Your task to perform on an android device: delete location history Image 0: 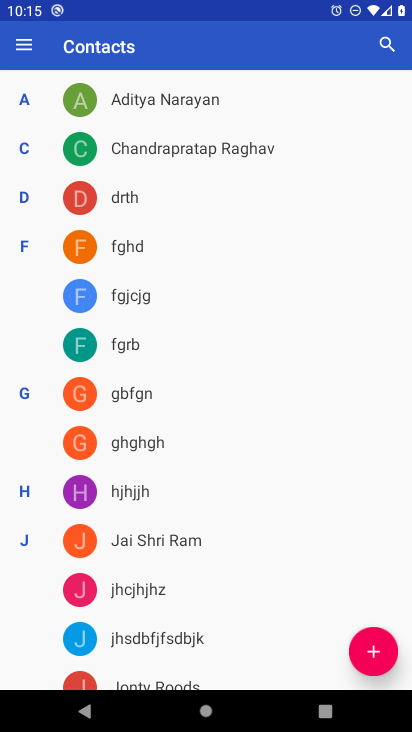
Step 0: press home button
Your task to perform on an android device: delete location history Image 1: 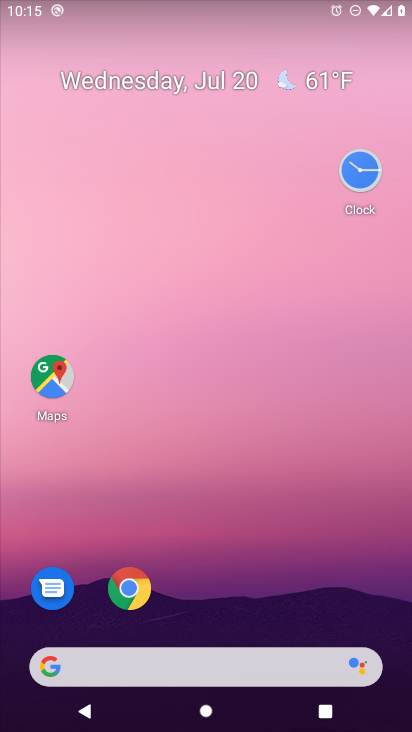
Step 1: drag from (34, 695) to (197, 239)
Your task to perform on an android device: delete location history Image 2: 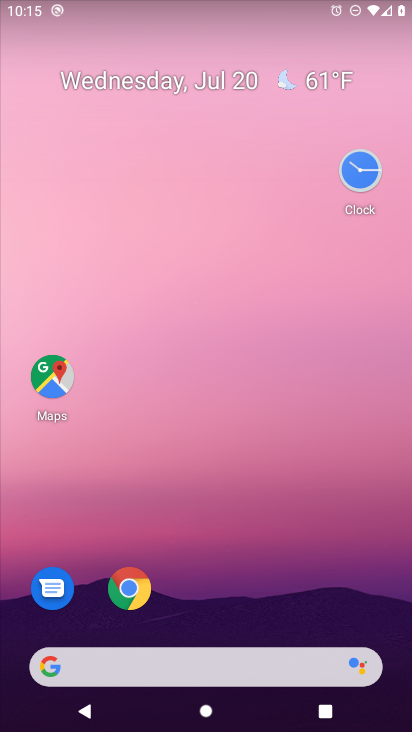
Step 2: drag from (11, 693) to (252, 142)
Your task to perform on an android device: delete location history Image 3: 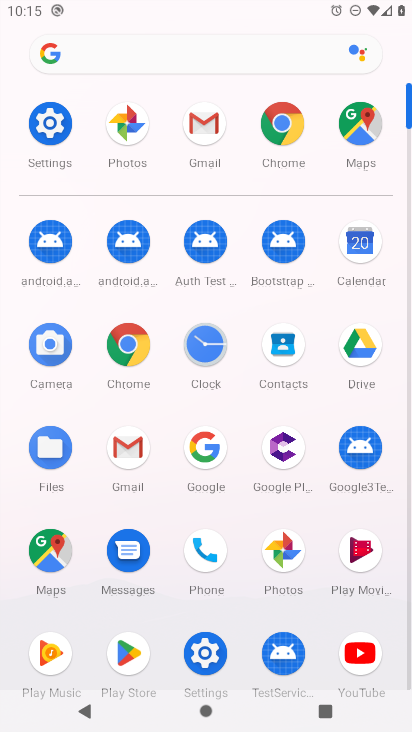
Step 3: click (206, 657)
Your task to perform on an android device: delete location history Image 4: 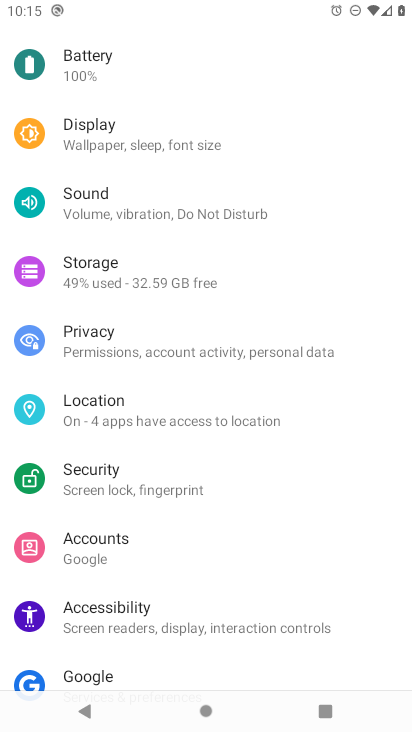
Step 4: click (132, 406)
Your task to perform on an android device: delete location history Image 5: 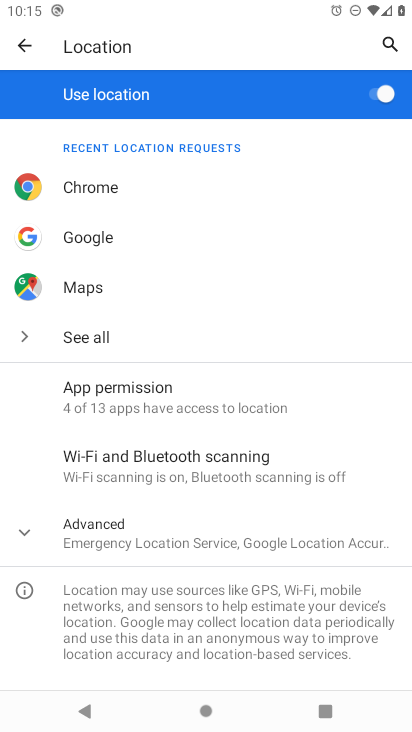
Step 5: click (89, 521)
Your task to perform on an android device: delete location history Image 6: 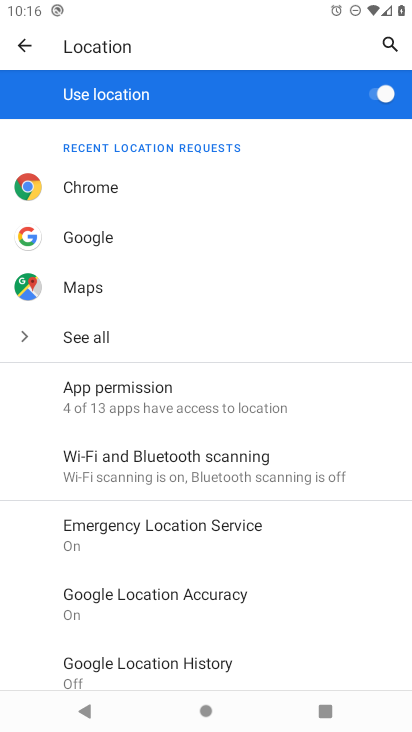
Step 6: click (124, 665)
Your task to perform on an android device: delete location history Image 7: 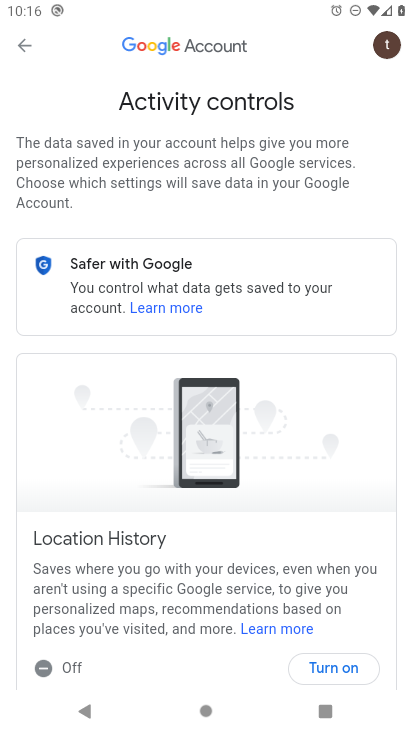
Step 7: drag from (195, 653) to (192, 377)
Your task to perform on an android device: delete location history Image 8: 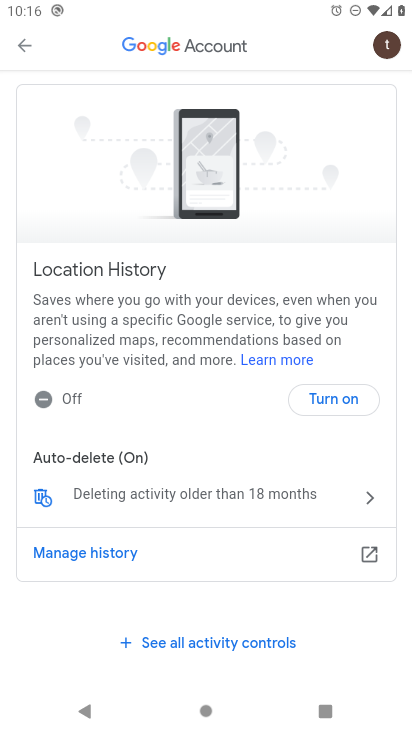
Step 8: click (91, 552)
Your task to perform on an android device: delete location history Image 9: 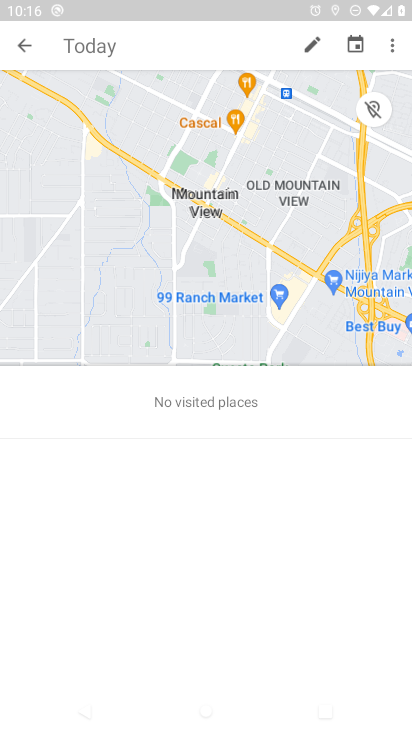
Step 9: task complete